Your task to perform on an android device: Open the settings Image 0: 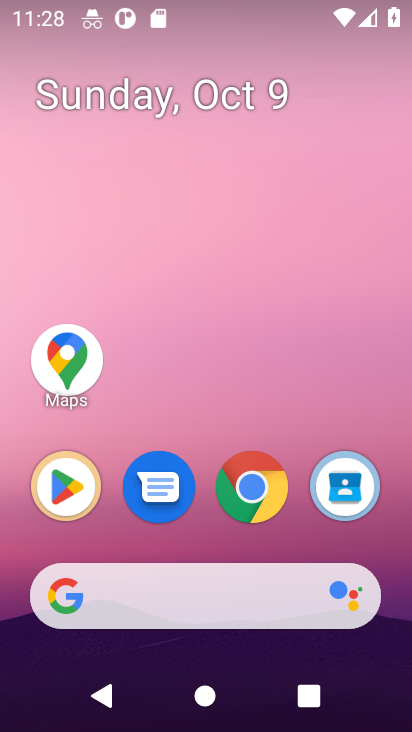
Step 0: drag from (226, 617) to (186, 121)
Your task to perform on an android device: Open the settings Image 1: 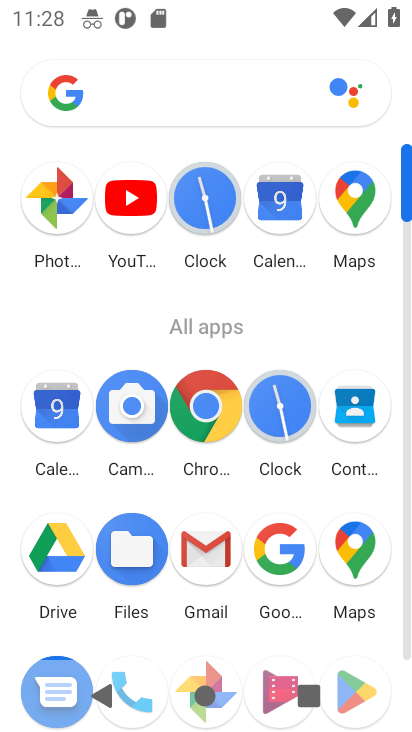
Step 1: drag from (215, 588) to (216, 315)
Your task to perform on an android device: Open the settings Image 2: 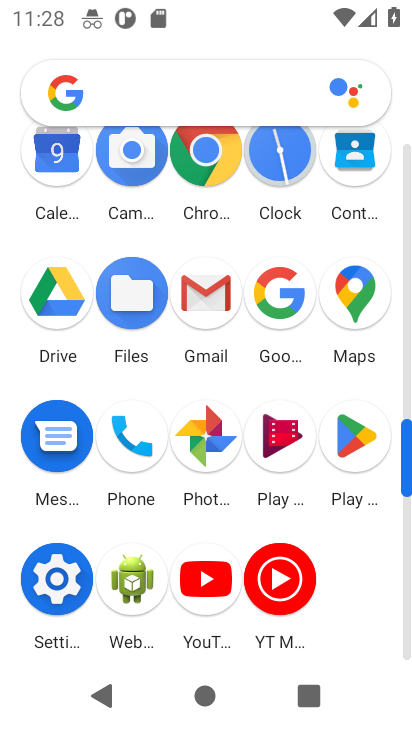
Step 2: click (55, 591)
Your task to perform on an android device: Open the settings Image 3: 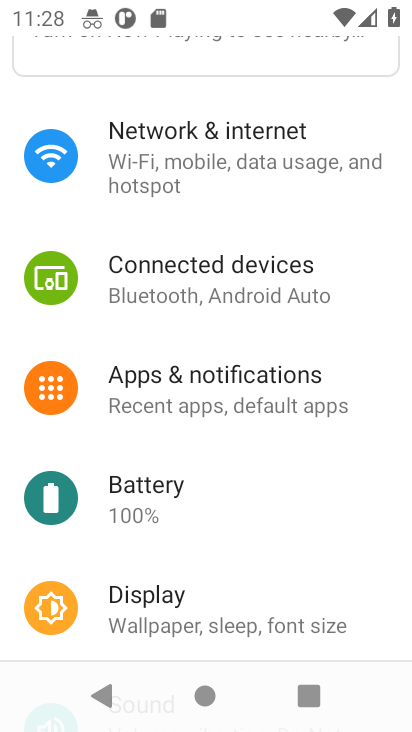
Step 3: task complete